Your task to perform on an android device: turn on wifi Image 0: 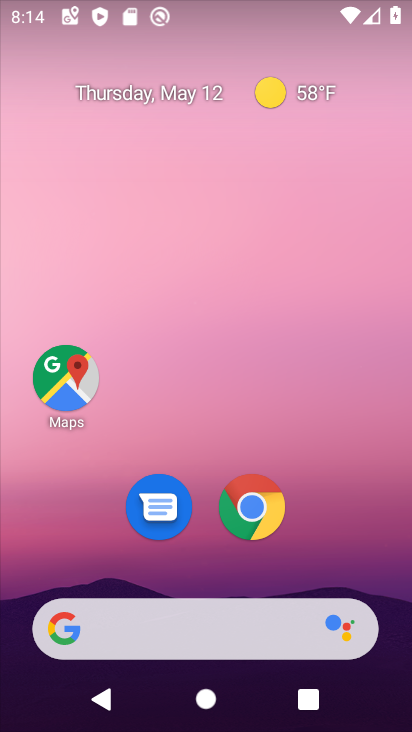
Step 0: press home button
Your task to perform on an android device: turn on wifi Image 1: 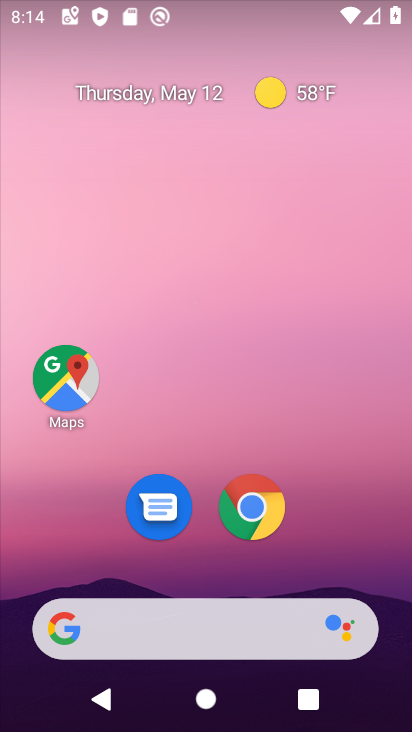
Step 1: drag from (213, 581) to (242, 242)
Your task to perform on an android device: turn on wifi Image 2: 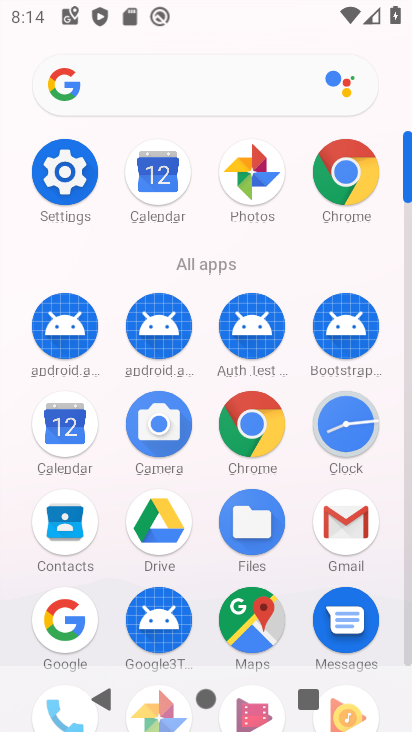
Step 2: click (73, 189)
Your task to perform on an android device: turn on wifi Image 3: 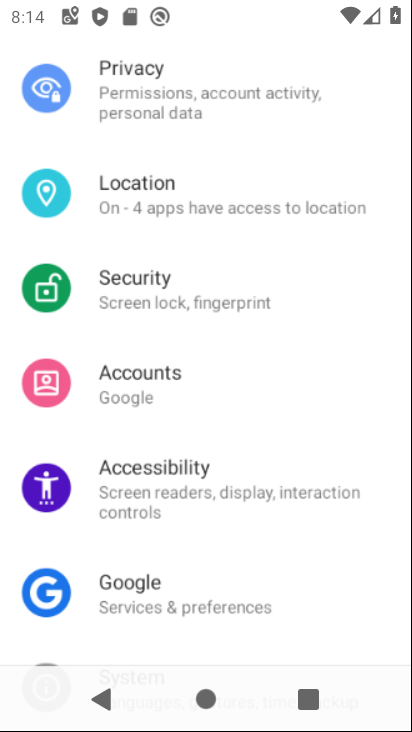
Step 3: drag from (168, 207) to (218, 524)
Your task to perform on an android device: turn on wifi Image 4: 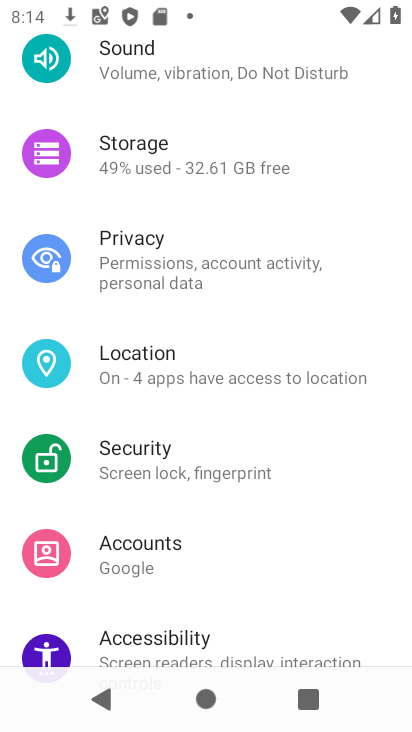
Step 4: drag from (214, 348) to (240, 527)
Your task to perform on an android device: turn on wifi Image 5: 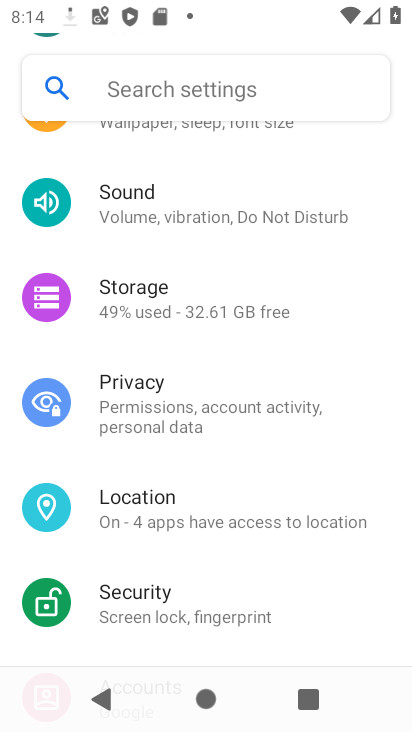
Step 5: drag from (225, 215) to (248, 579)
Your task to perform on an android device: turn on wifi Image 6: 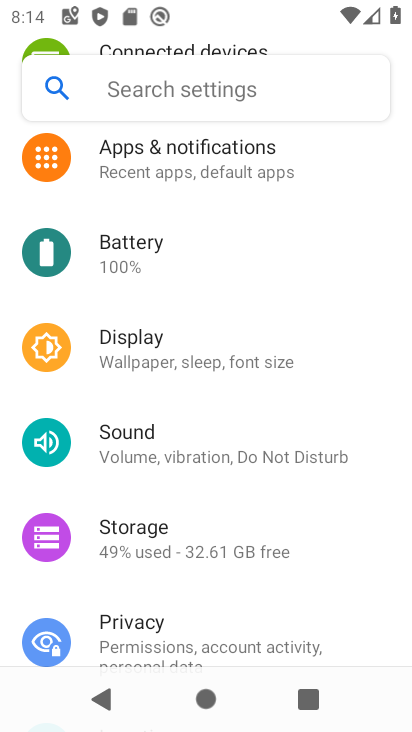
Step 6: drag from (231, 222) to (275, 506)
Your task to perform on an android device: turn on wifi Image 7: 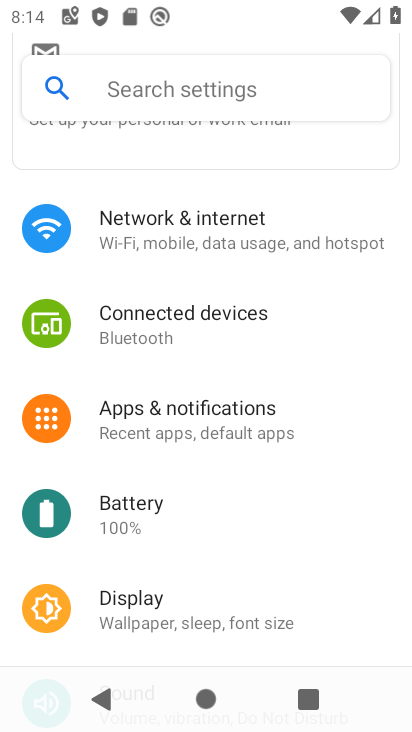
Step 7: drag from (237, 296) to (255, 582)
Your task to perform on an android device: turn on wifi Image 8: 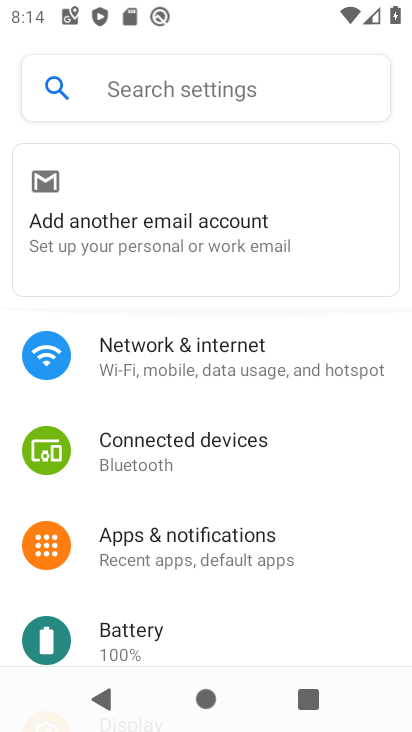
Step 8: click (197, 356)
Your task to perform on an android device: turn on wifi Image 9: 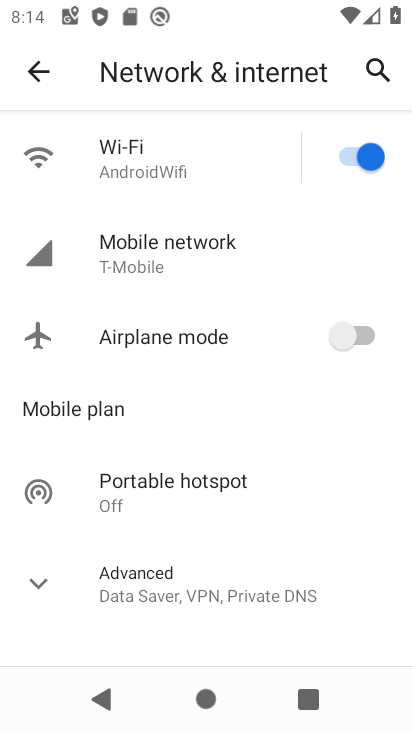
Step 9: task complete